Your task to perform on an android device: Show the shopping cart on newegg. Add "acer predator" to the cart on newegg Image 0: 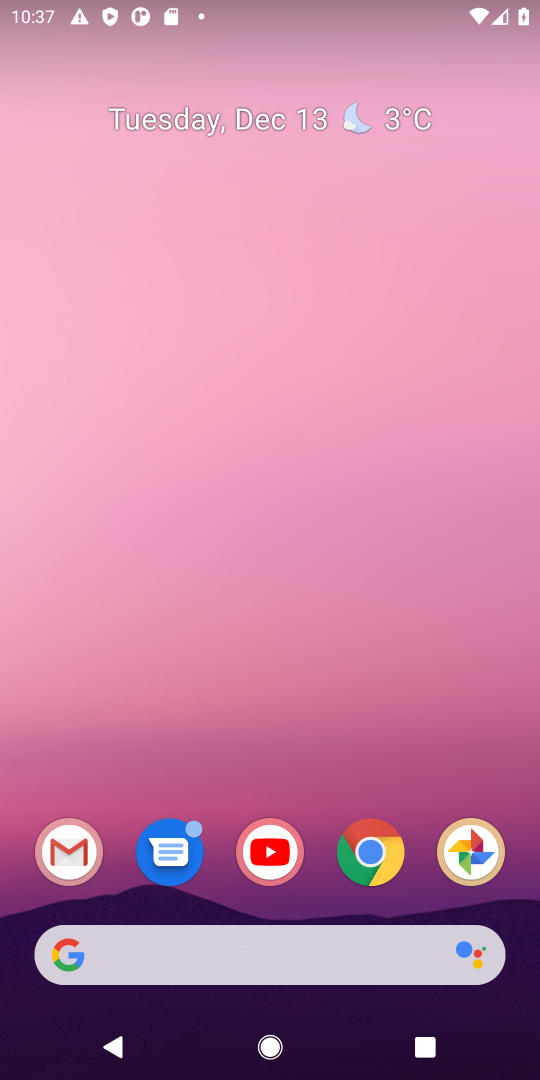
Step 0: press home button
Your task to perform on an android device: Show the shopping cart on newegg. Add "acer predator" to the cart on newegg Image 1: 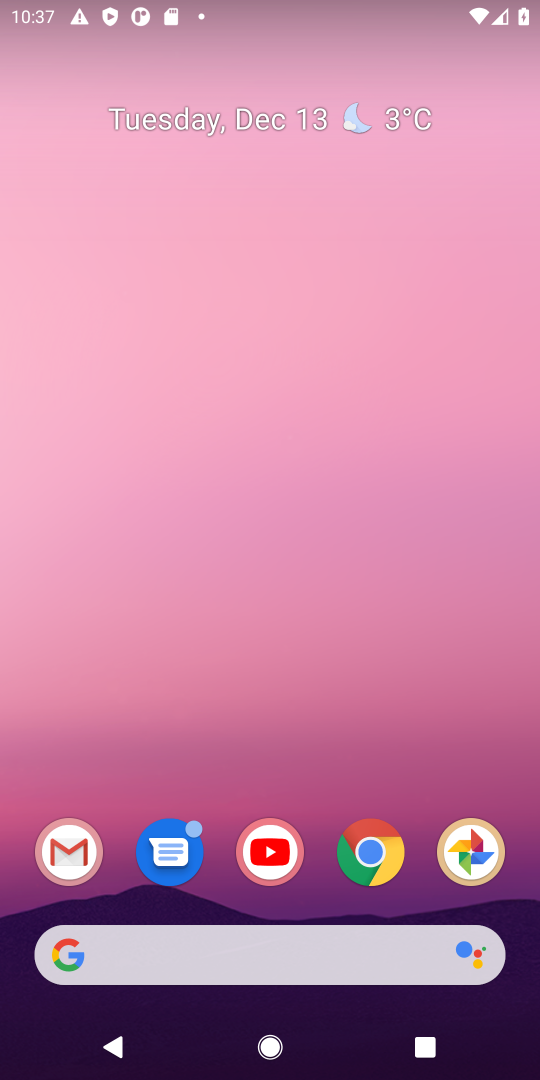
Step 1: click (125, 950)
Your task to perform on an android device: Show the shopping cart on newegg. Add "acer predator" to the cart on newegg Image 2: 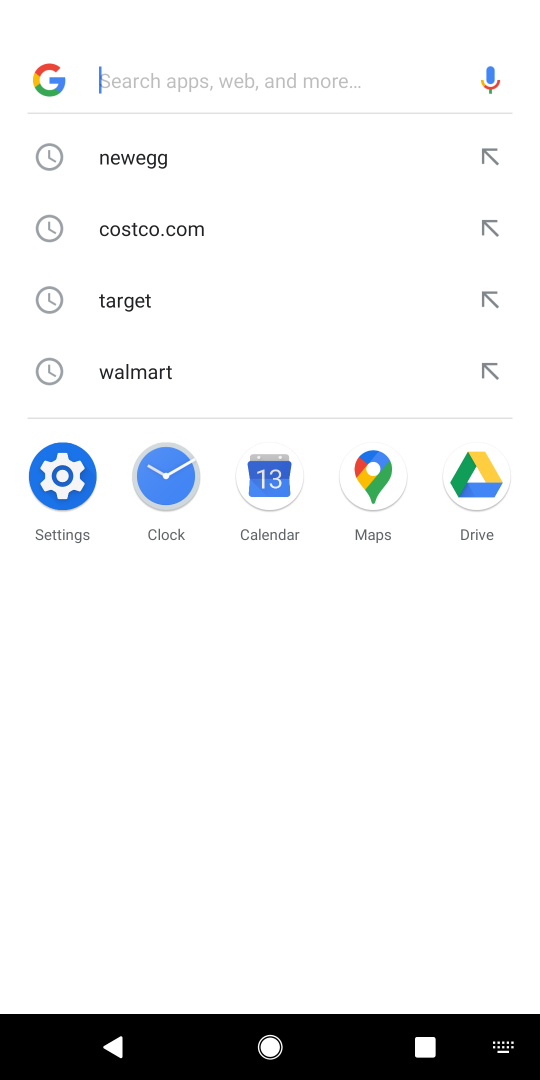
Step 2: type "newegg"
Your task to perform on an android device: Show the shopping cart on newegg. Add "acer predator" to the cart on newegg Image 3: 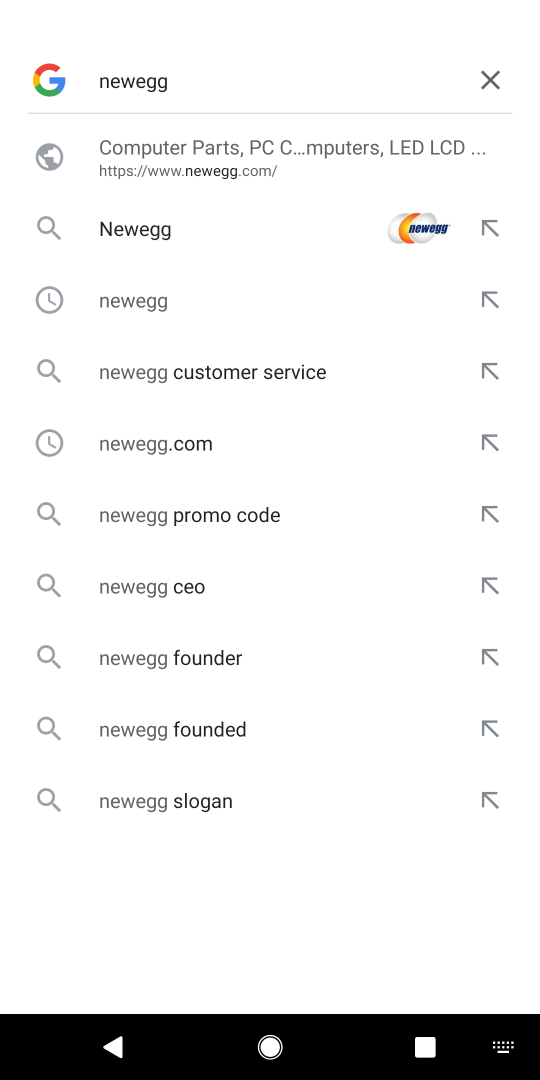
Step 3: press enter
Your task to perform on an android device: Show the shopping cart on newegg. Add "acer predator" to the cart on newegg Image 4: 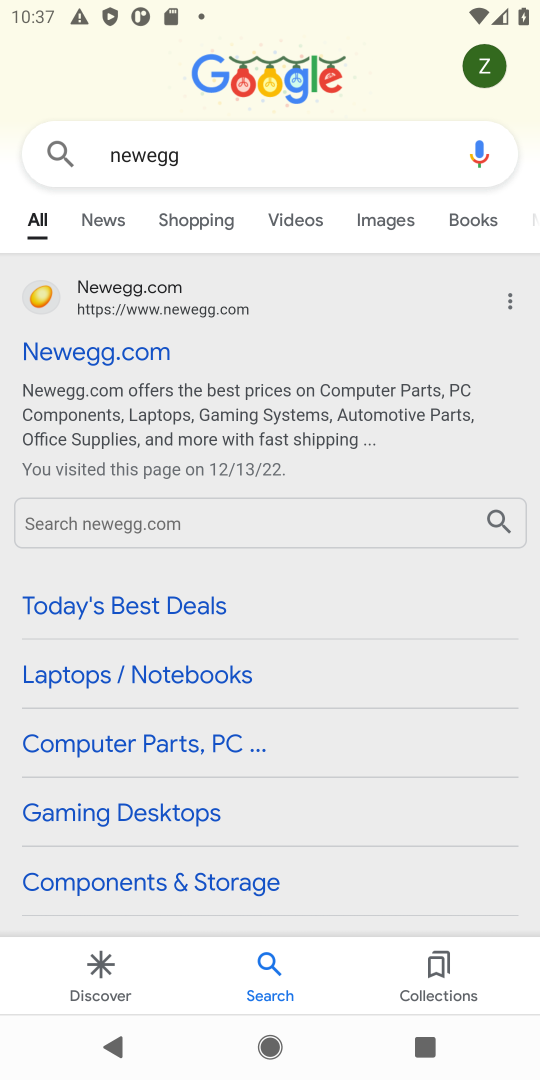
Step 4: click (83, 357)
Your task to perform on an android device: Show the shopping cart on newegg. Add "acer predator" to the cart on newegg Image 5: 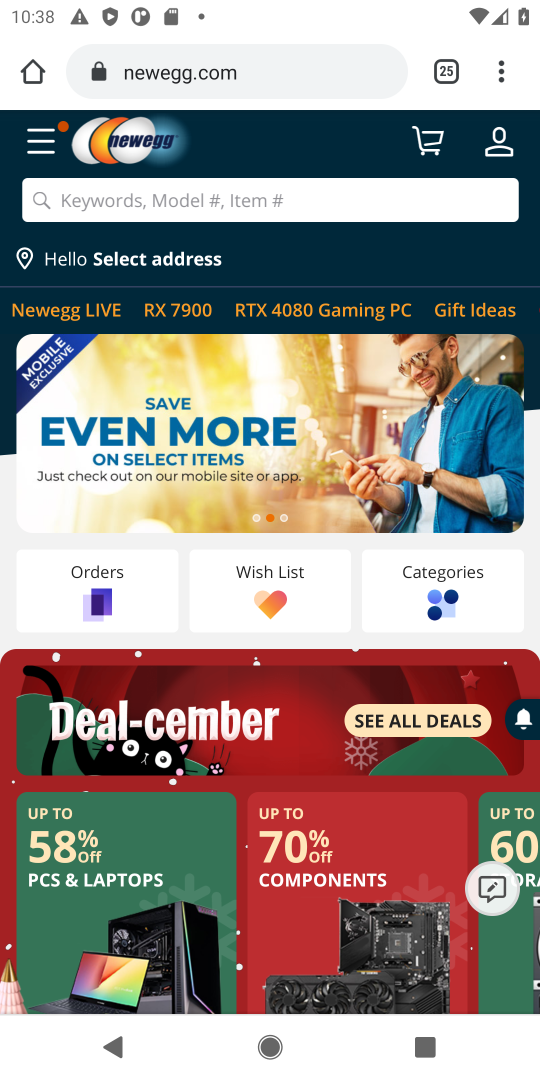
Step 5: click (433, 143)
Your task to perform on an android device: Show the shopping cart on newegg. Add "acer predator" to the cart on newegg Image 6: 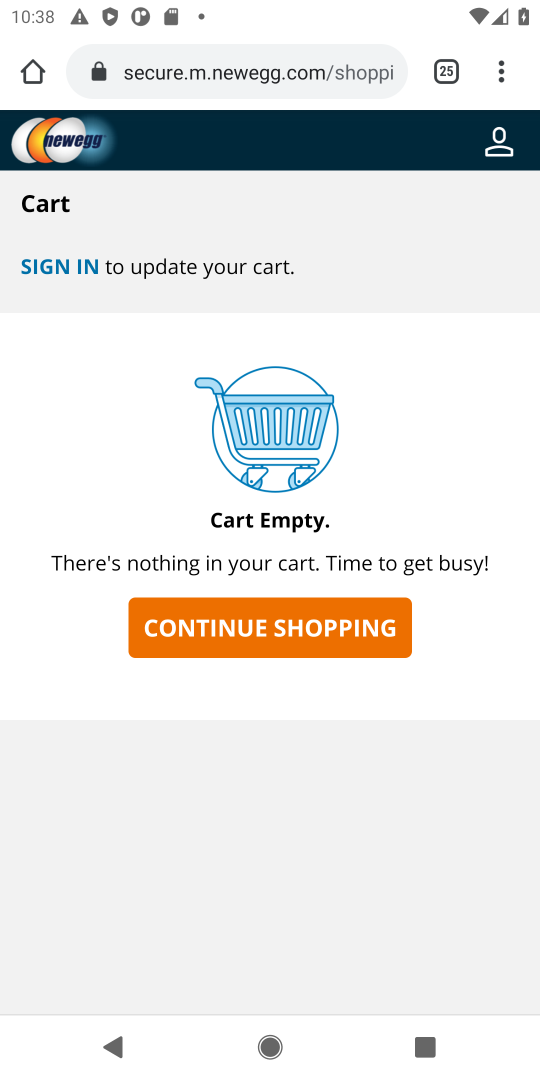
Step 6: press back button
Your task to perform on an android device: Show the shopping cart on newegg. Add "acer predator" to the cart on newegg Image 7: 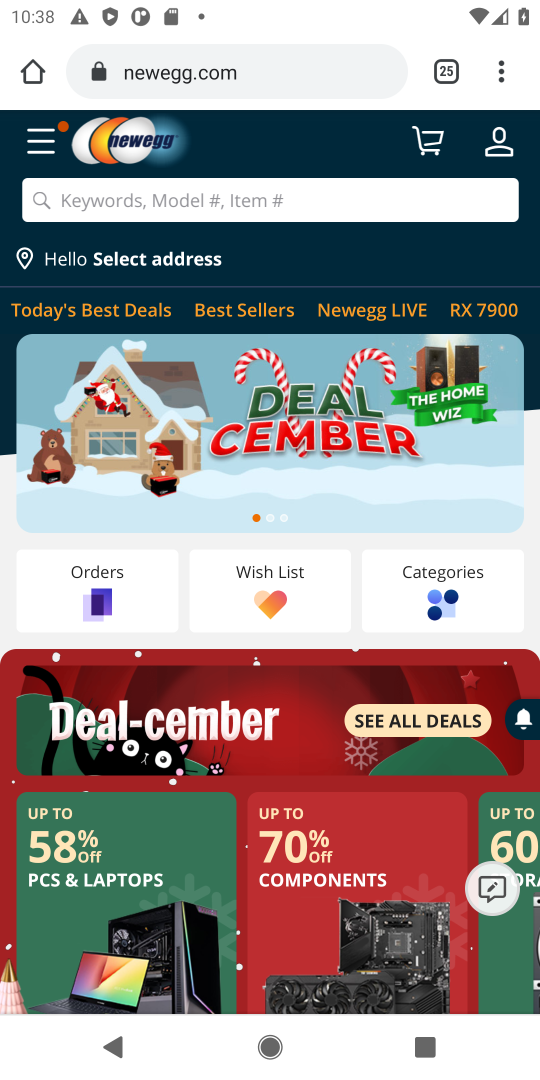
Step 7: click (193, 196)
Your task to perform on an android device: Show the shopping cart on newegg. Add "acer predator" to the cart on newegg Image 8: 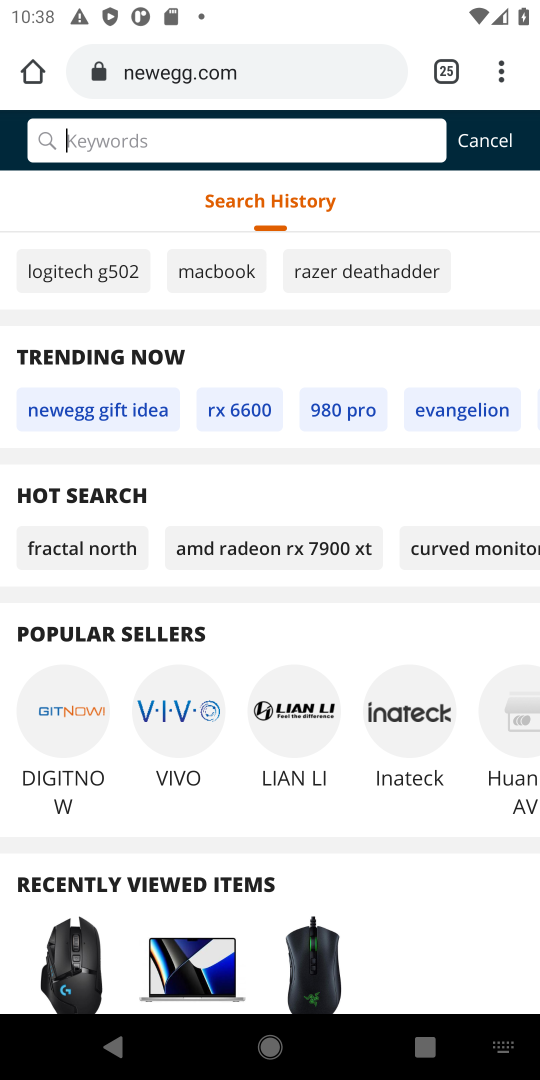
Step 8: type "acer predator"
Your task to perform on an android device: Show the shopping cart on newegg. Add "acer predator" to the cart on newegg Image 9: 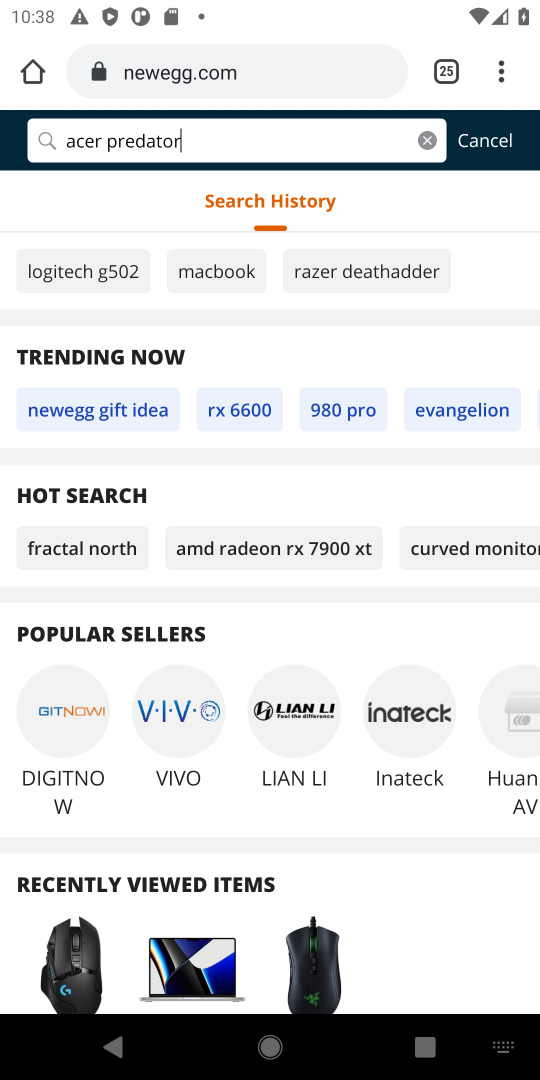
Step 9: press enter
Your task to perform on an android device: Show the shopping cart on newegg. Add "acer predator" to the cart on newegg Image 10: 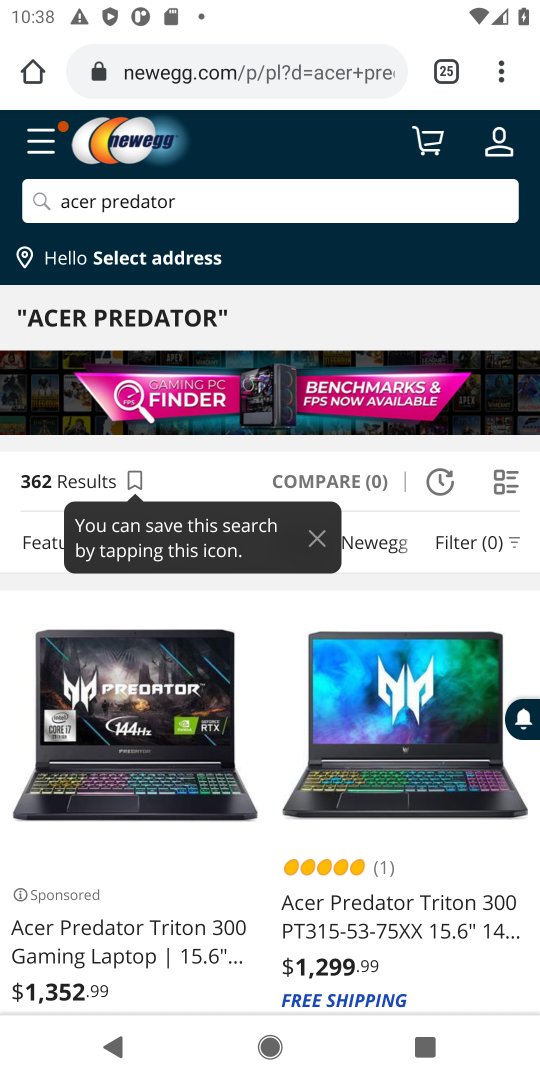
Step 10: drag from (369, 952) to (389, 601)
Your task to perform on an android device: Show the shopping cart on newegg. Add "acer predator" to the cart on newegg Image 11: 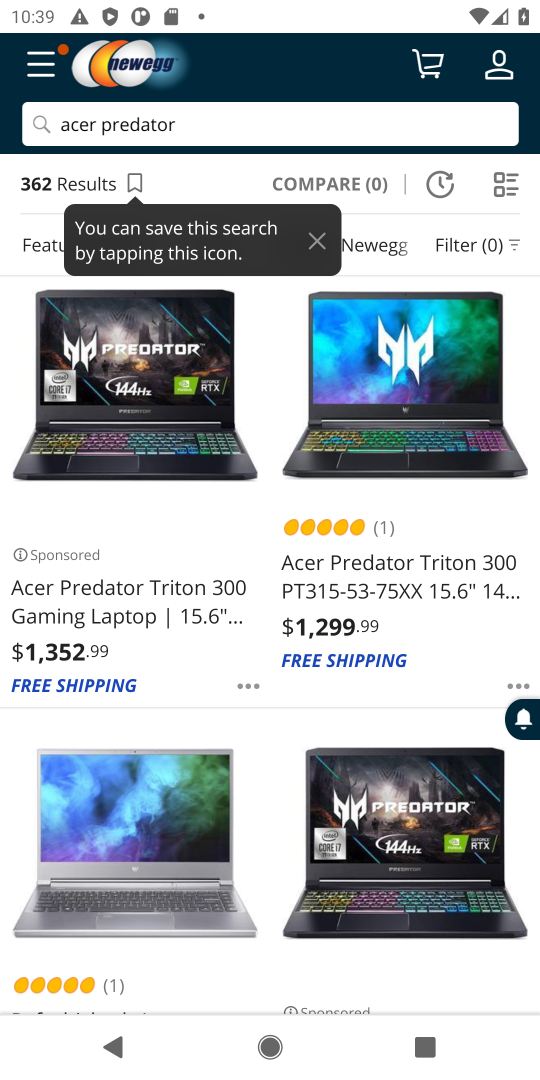
Step 11: click (364, 596)
Your task to perform on an android device: Show the shopping cart on newegg. Add "acer predator" to the cart on newegg Image 12: 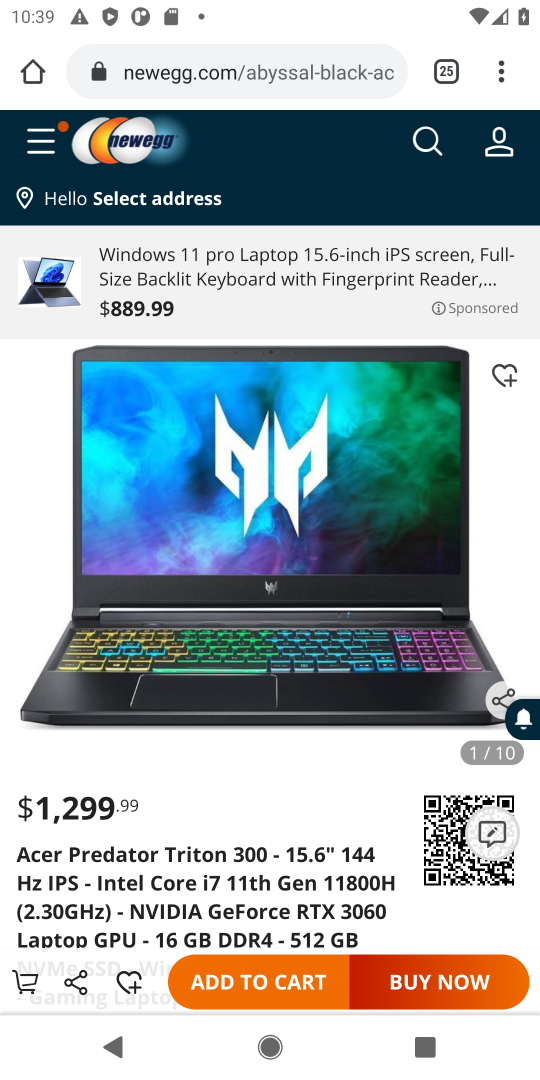
Step 12: click (199, 990)
Your task to perform on an android device: Show the shopping cart on newegg. Add "acer predator" to the cart on newegg Image 13: 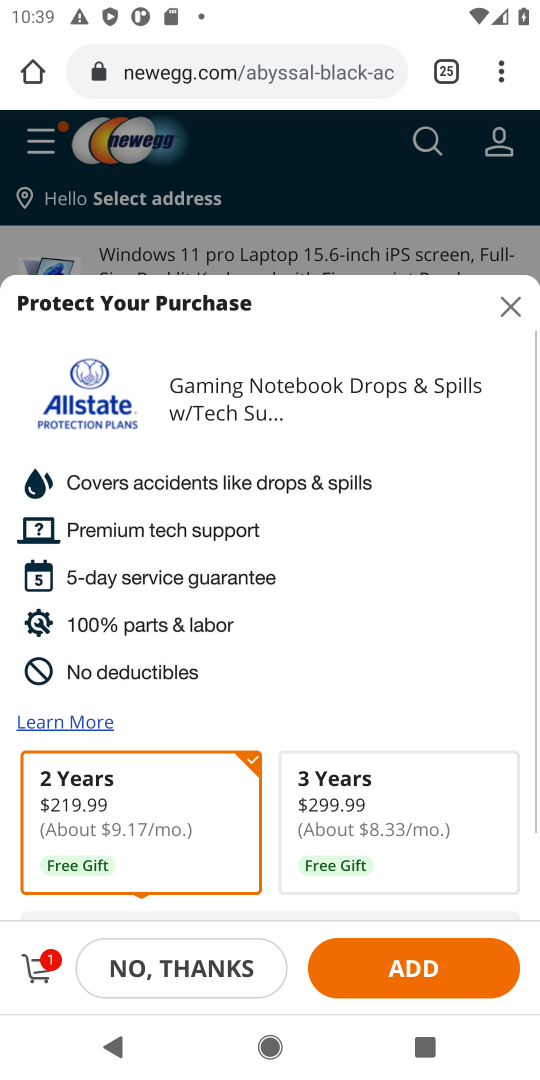
Step 13: task complete